Your task to perform on an android device: What's on my calendar today? Image 0: 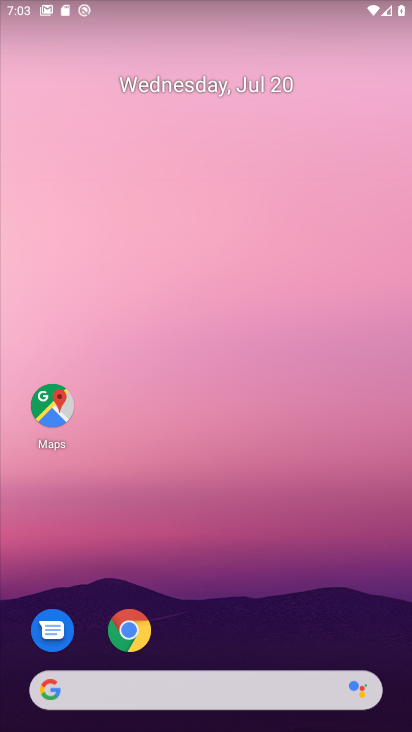
Step 0: drag from (252, 630) to (287, 197)
Your task to perform on an android device: What's on my calendar today? Image 1: 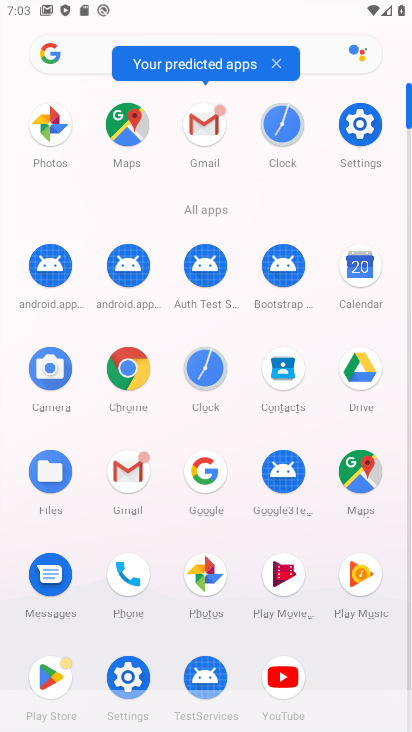
Step 1: click (360, 277)
Your task to perform on an android device: What's on my calendar today? Image 2: 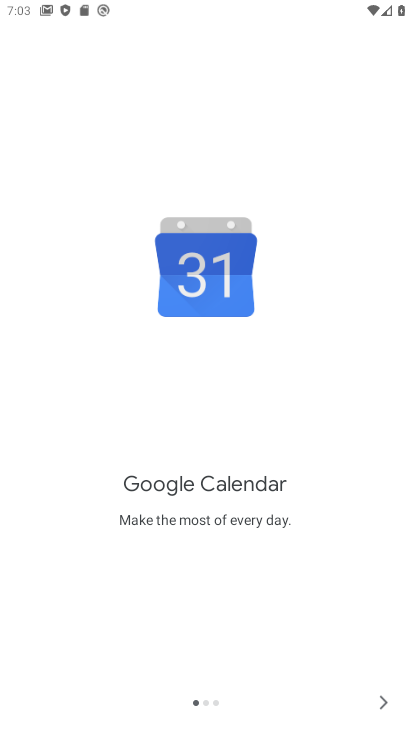
Step 2: click (371, 698)
Your task to perform on an android device: What's on my calendar today? Image 3: 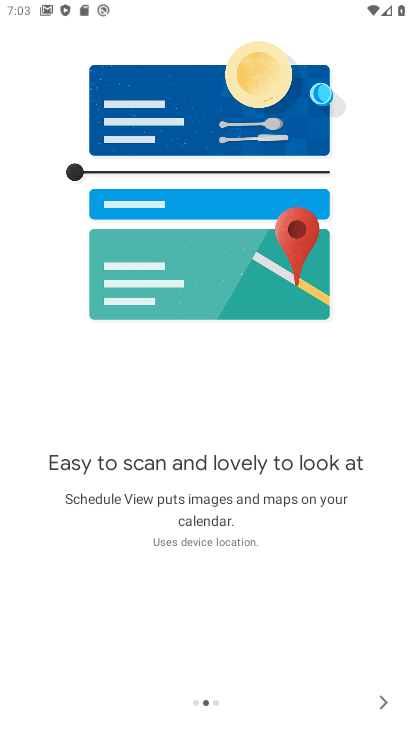
Step 3: click (372, 697)
Your task to perform on an android device: What's on my calendar today? Image 4: 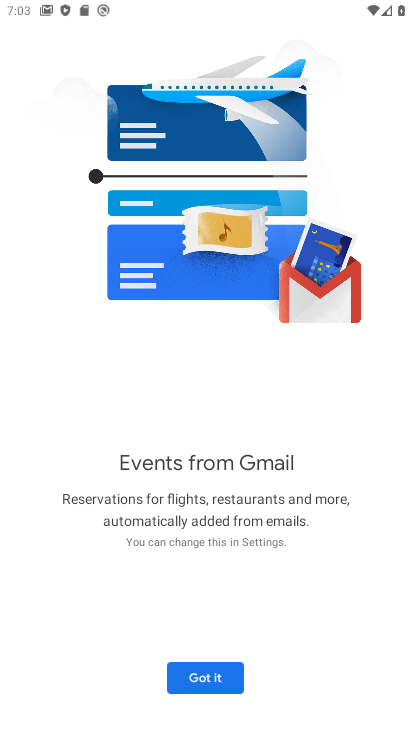
Step 4: click (372, 697)
Your task to perform on an android device: What's on my calendar today? Image 5: 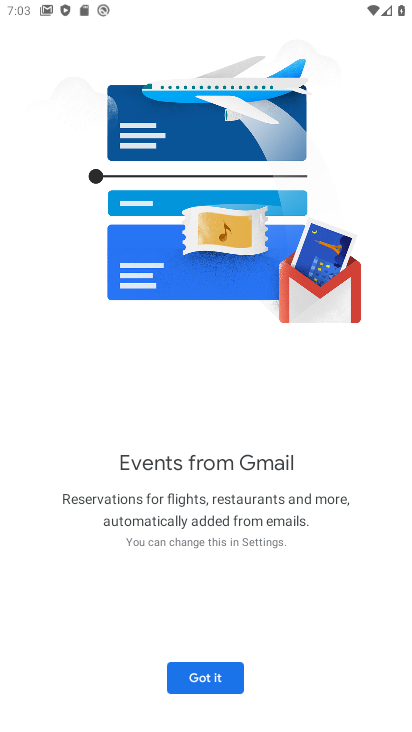
Step 5: click (192, 677)
Your task to perform on an android device: What's on my calendar today? Image 6: 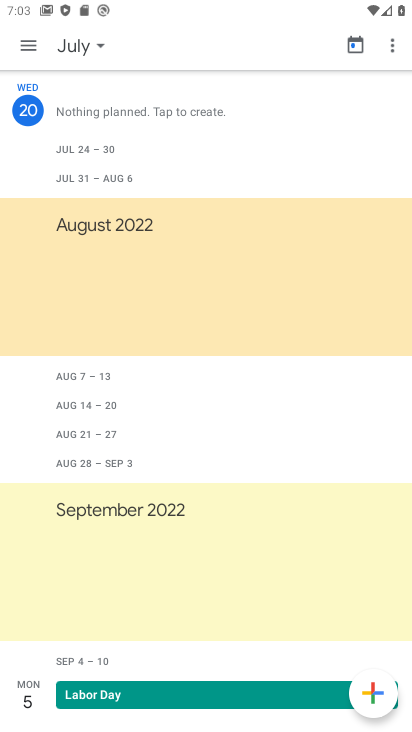
Step 6: click (89, 50)
Your task to perform on an android device: What's on my calendar today? Image 7: 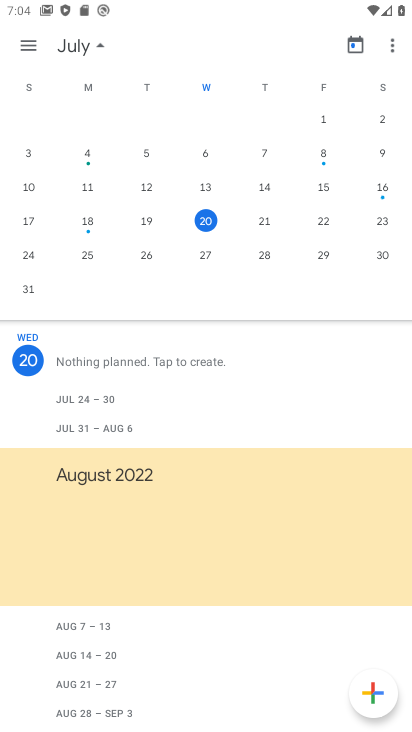
Step 7: click (251, 222)
Your task to perform on an android device: What's on my calendar today? Image 8: 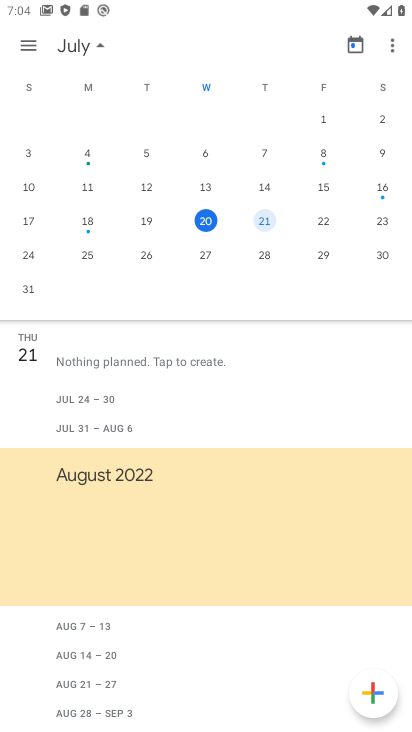
Step 8: click (213, 227)
Your task to perform on an android device: What's on my calendar today? Image 9: 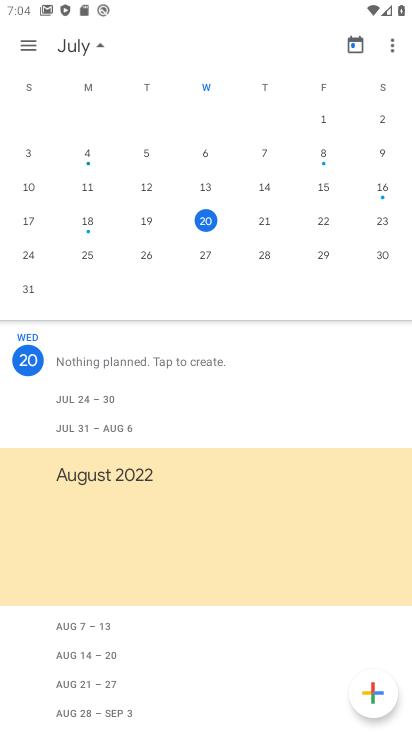
Step 9: task complete